Your task to perform on an android device: Go to calendar. Show me events next week Image 0: 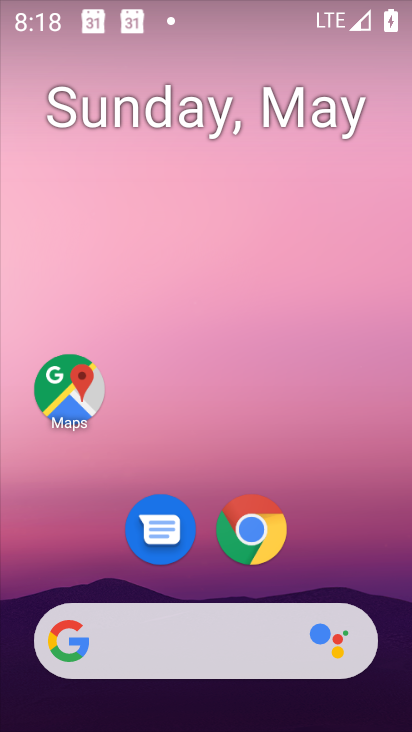
Step 0: drag from (182, 605) to (247, 29)
Your task to perform on an android device: Go to calendar. Show me events next week Image 1: 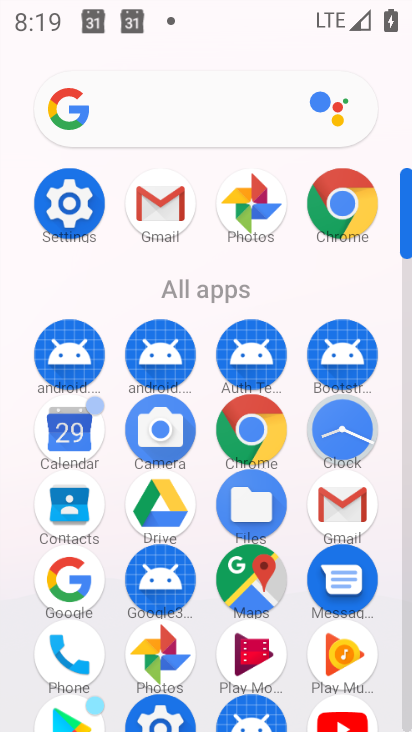
Step 1: click (73, 439)
Your task to perform on an android device: Go to calendar. Show me events next week Image 2: 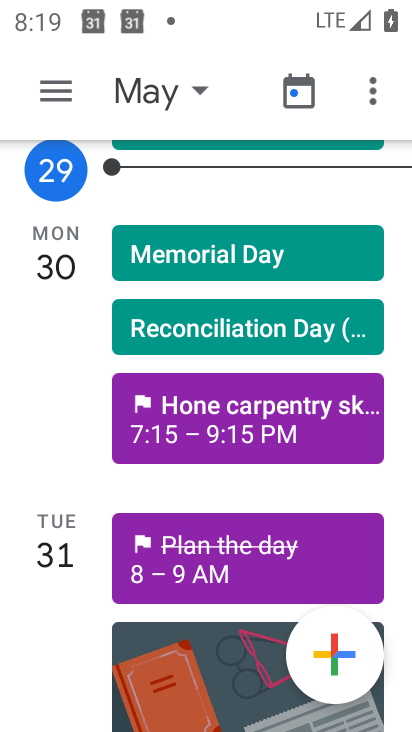
Step 2: drag from (231, 620) to (246, 86)
Your task to perform on an android device: Go to calendar. Show me events next week Image 3: 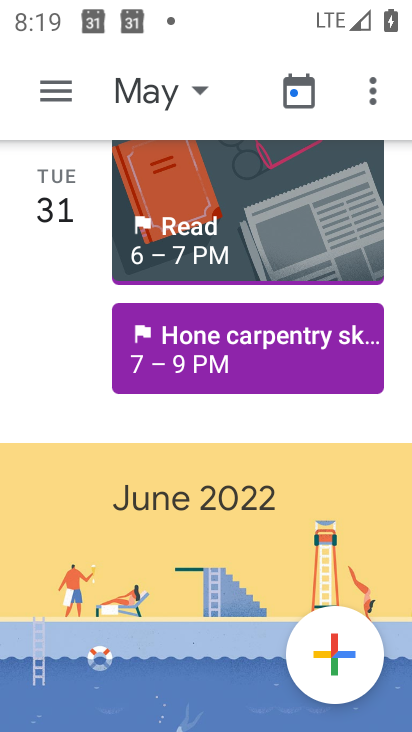
Step 3: drag from (186, 645) to (239, 99)
Your task to perform on an android device: Go to calendar. Show me events next week Image 4: 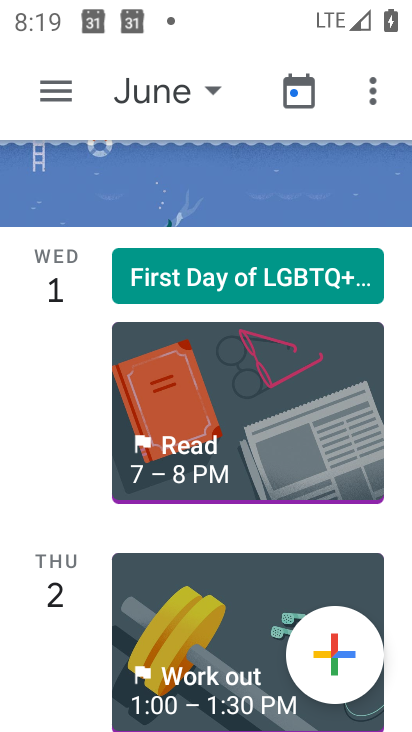
Step 4: click (233, 285)
Your task to perform on an android device: Go to calendar. Show me events next week Image 5: 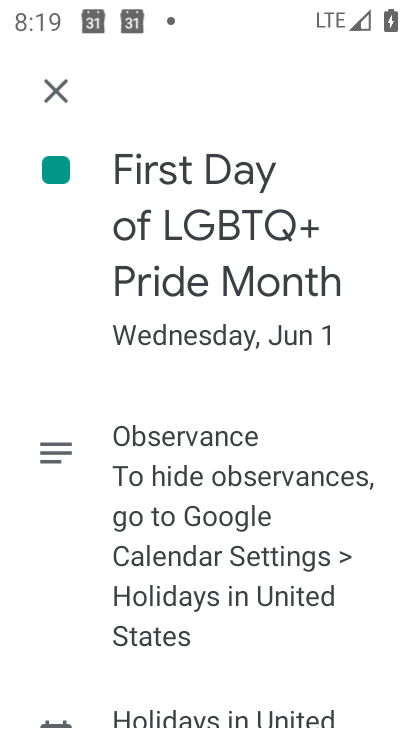
Step 5: task complete